Your task to perform on an android device: Do I have any events today? Image 0: 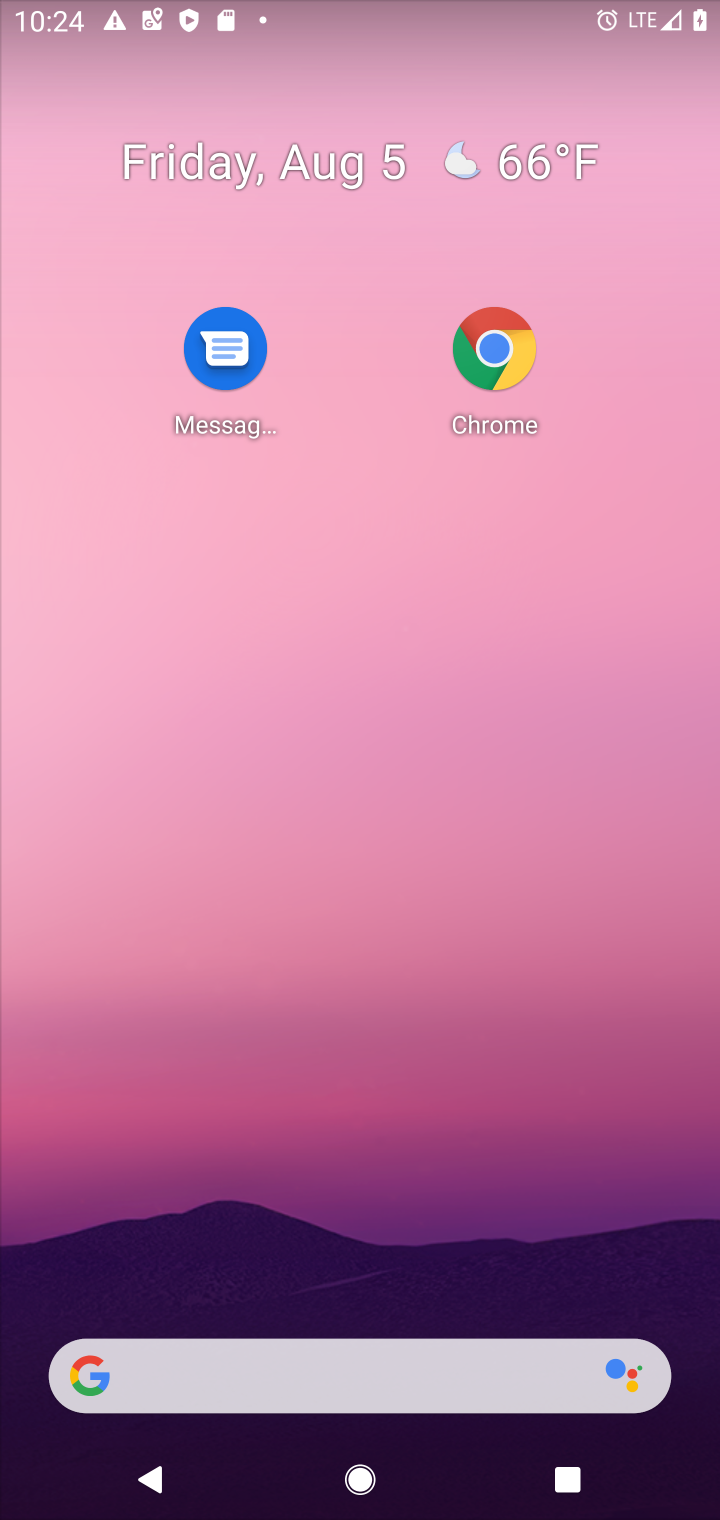
Step 0: drag from (423, 1125) to (373, 342)
Your task to perform on an android device: Do I have any events today? Image 1: 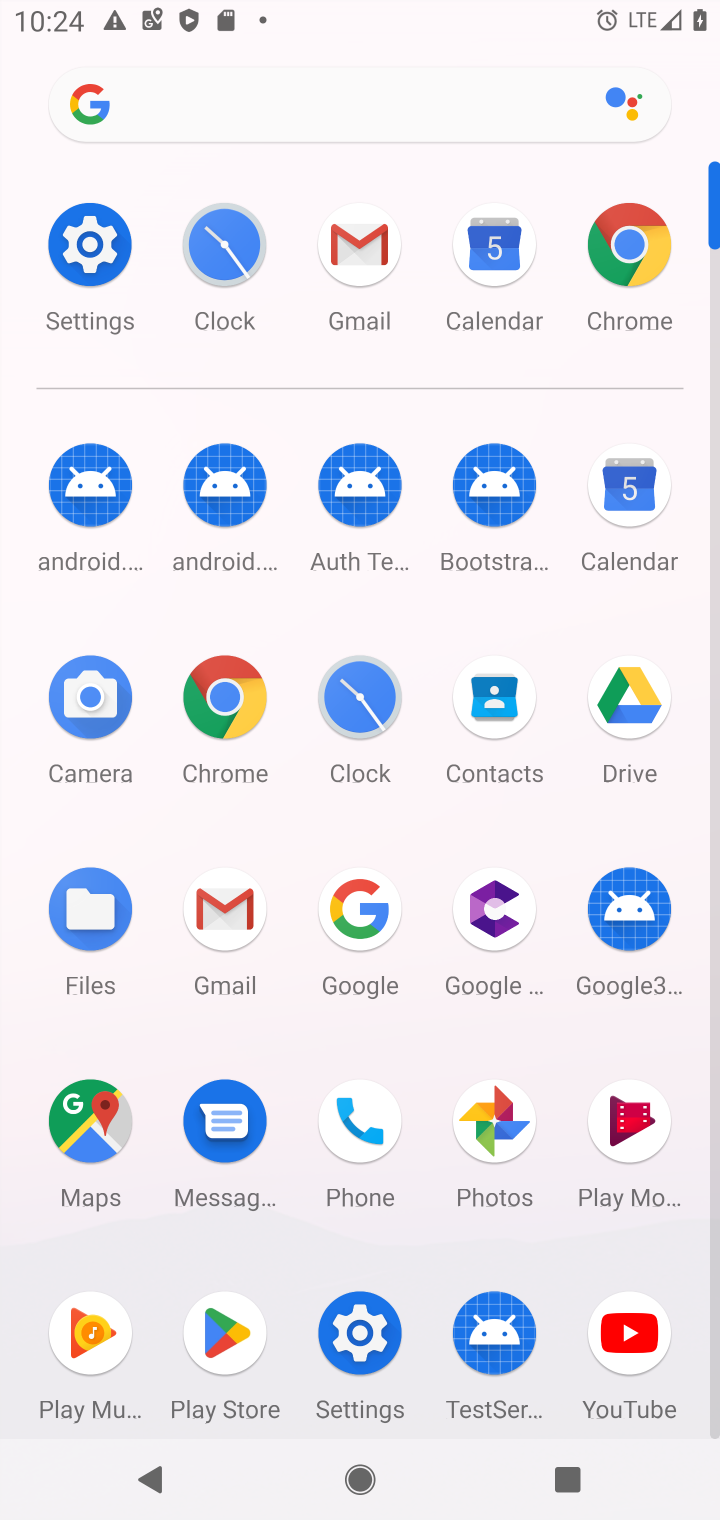
Step 1: click (622, 506)
Your task to perform on an android device: Do I have any events today? Image 2: 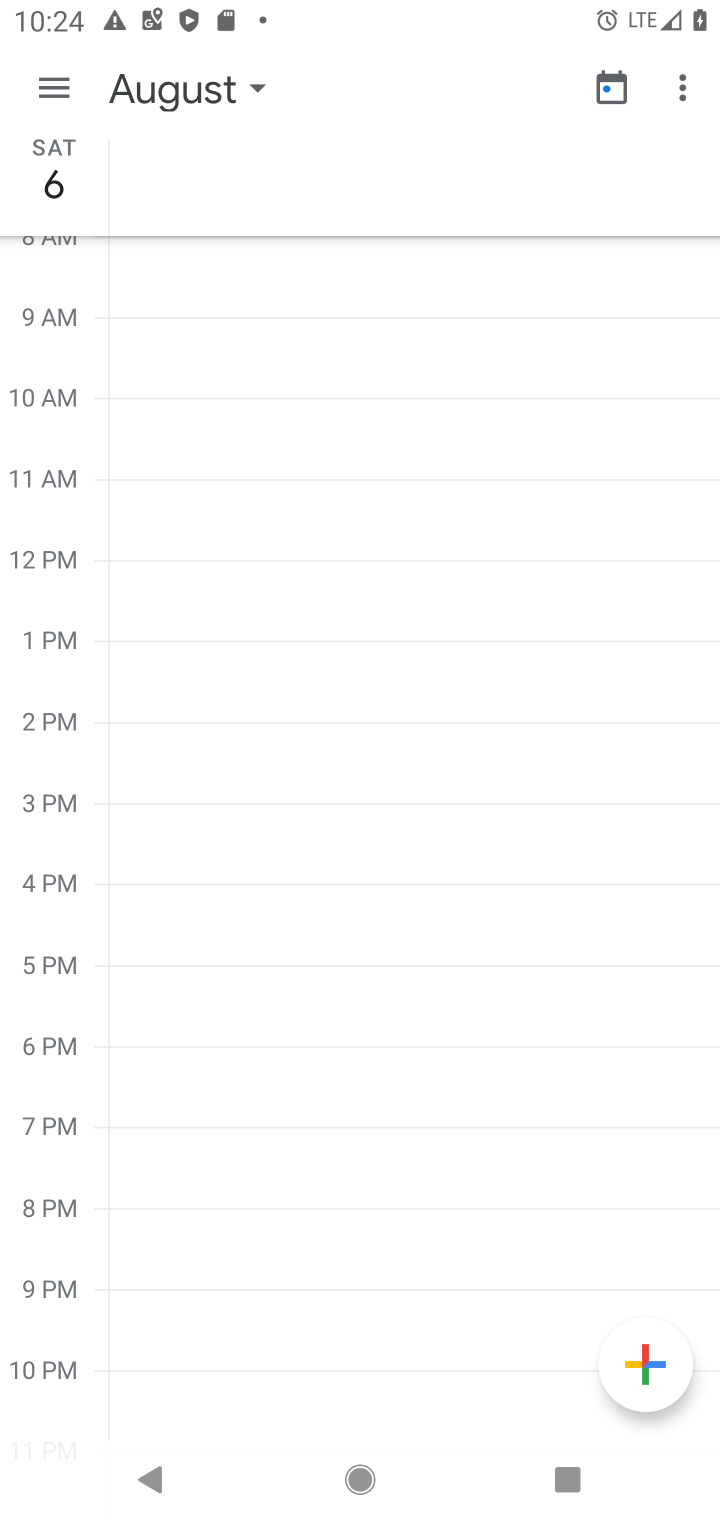
Step 2: click (59, 82)
Your task to perform on an android device: Do I have any events today? Image 3: 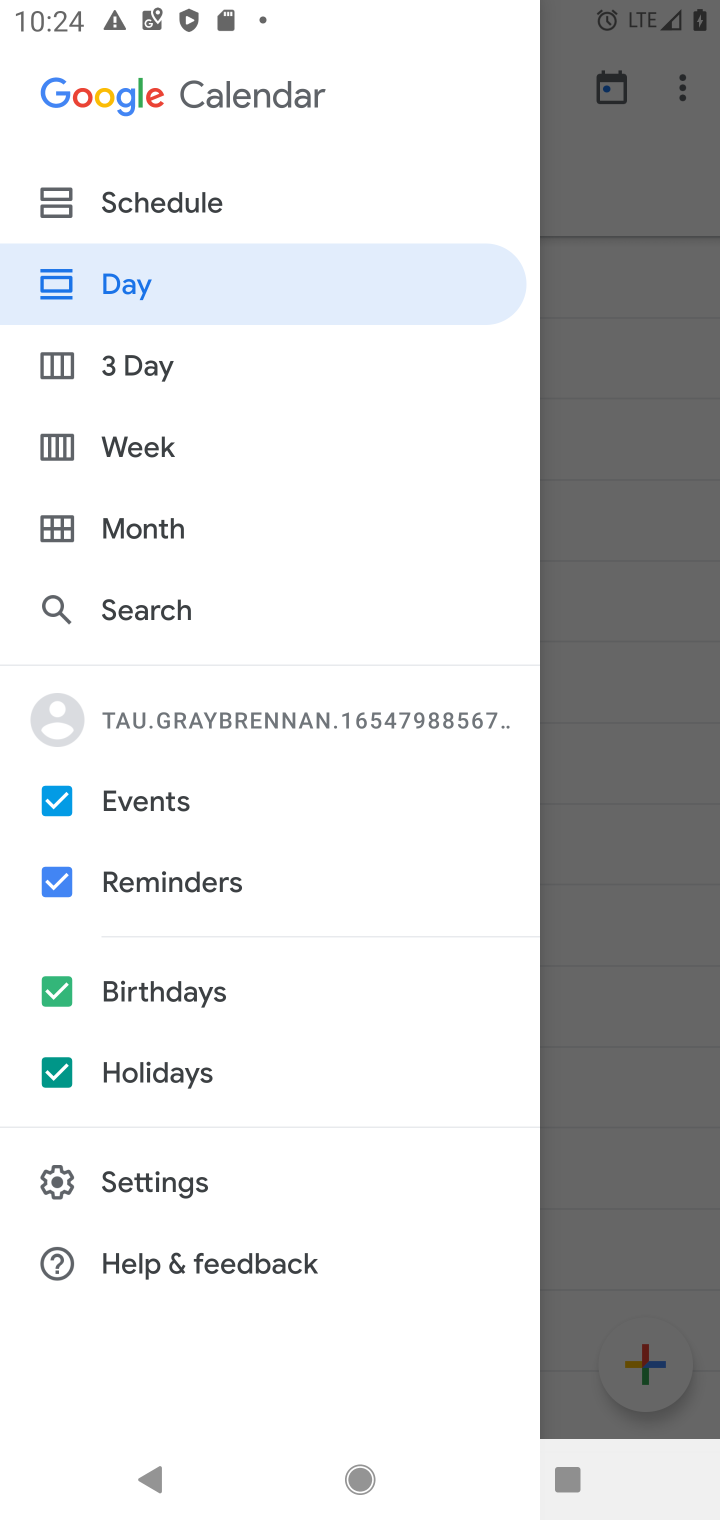
Step 3: click (148, 519)
Your task to perform on an android device: Do I have any events today? Image 4: 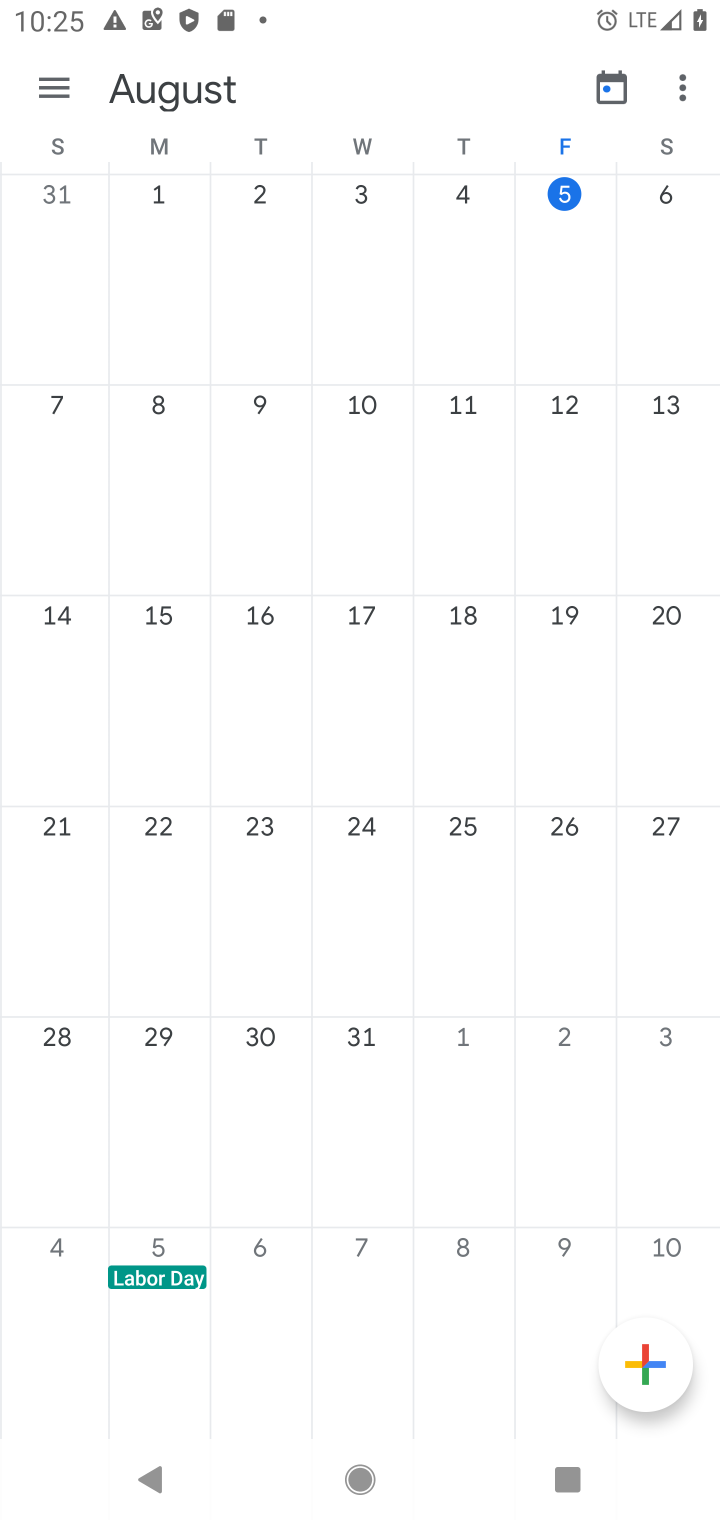
Step 4: click (556, 218)
Your task to perform on an android device: Do I have any events today? Image 5: 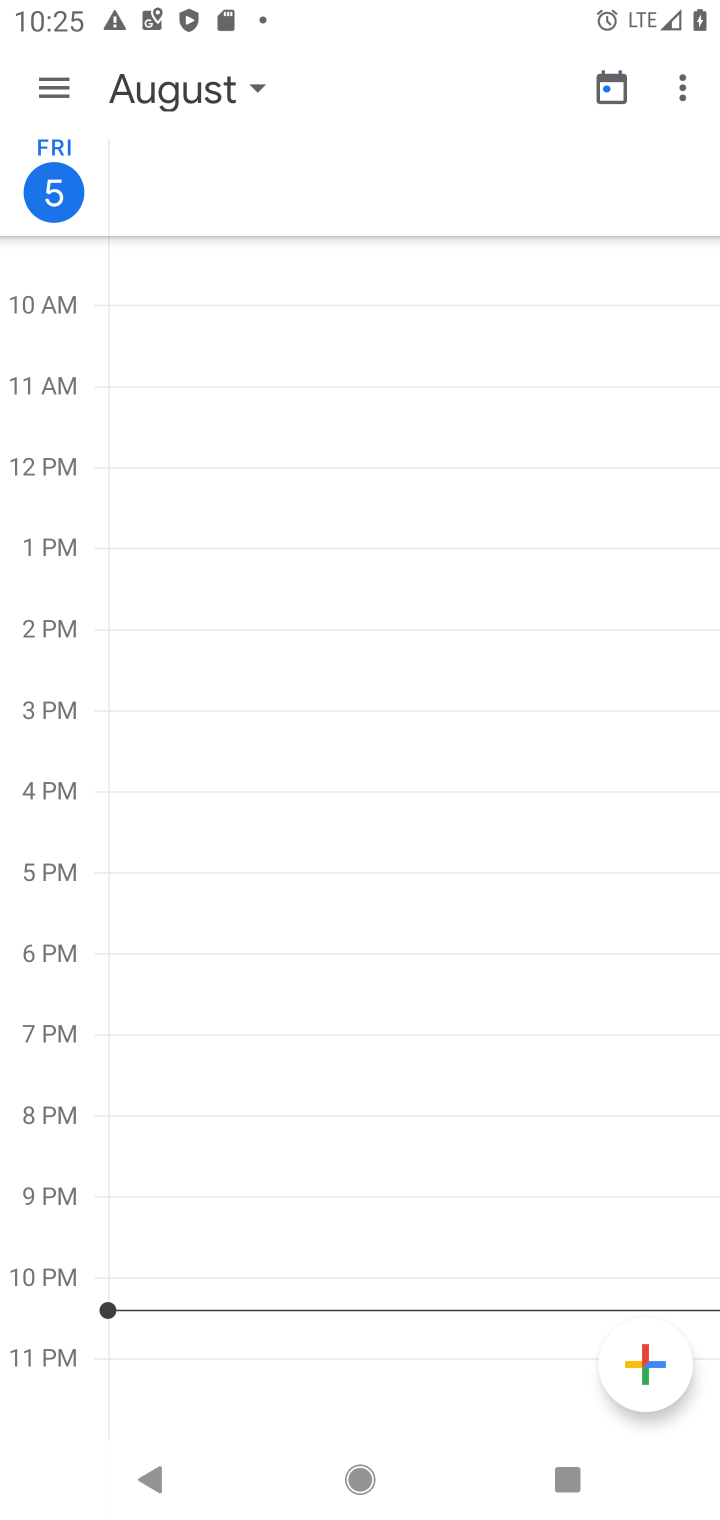
Step 5: click (60, 201)
Your task to perform on an android device: Do I have any events today? Image 6: 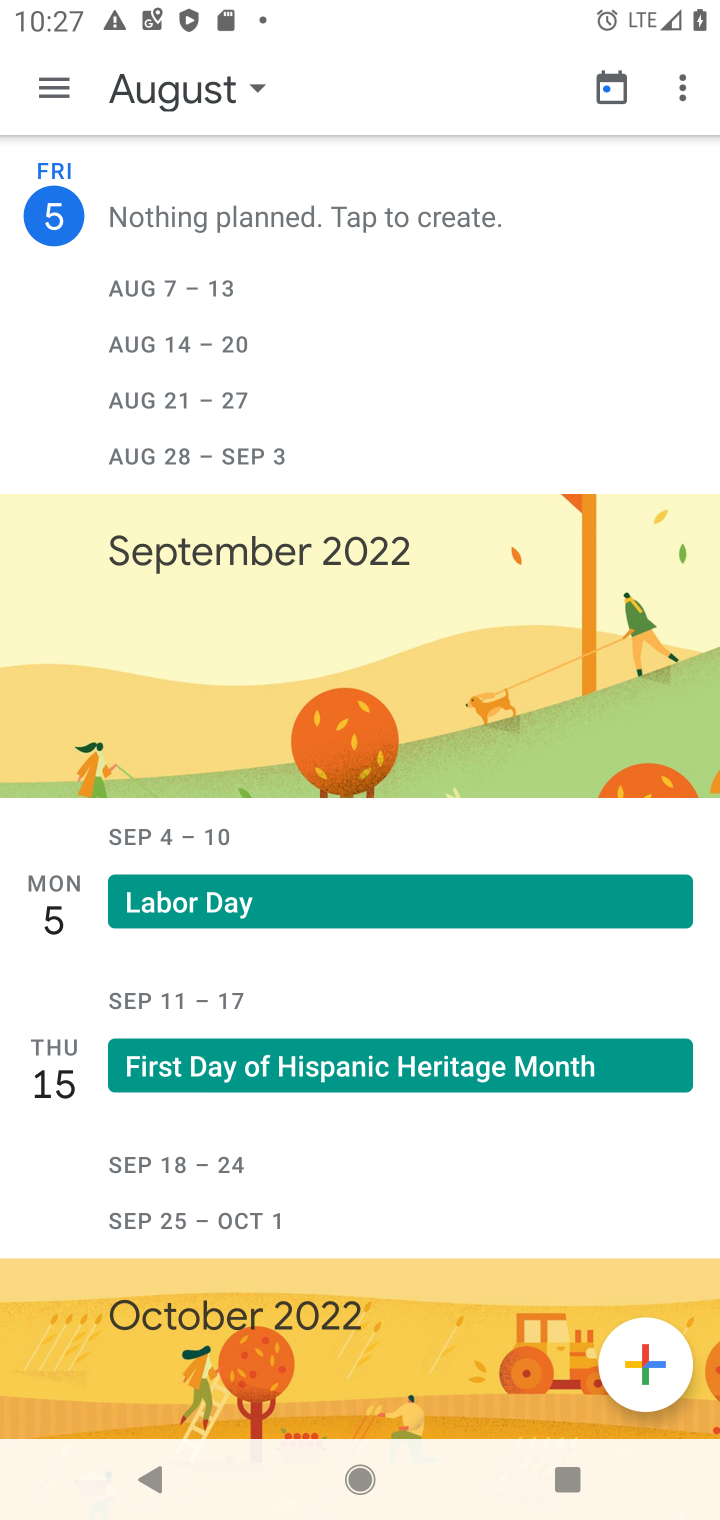
Step 6: task complete